Your task to perform on an android device: Open Chrome and go to the settings page Image 0: 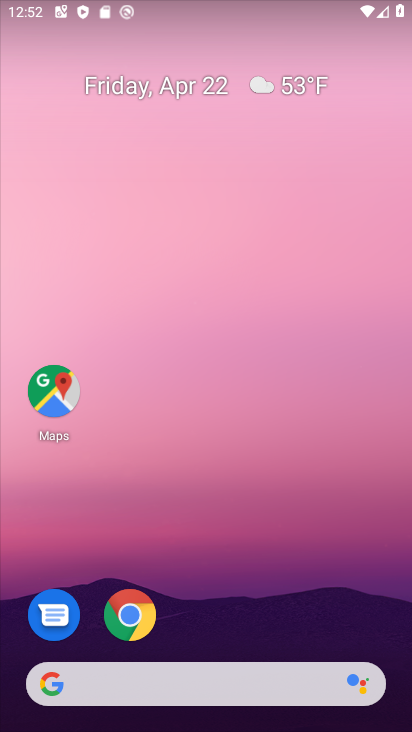
Step 0: click (132, 613)
Your task to perform on an android device: Open Chrome and go to the settings page Image 1: 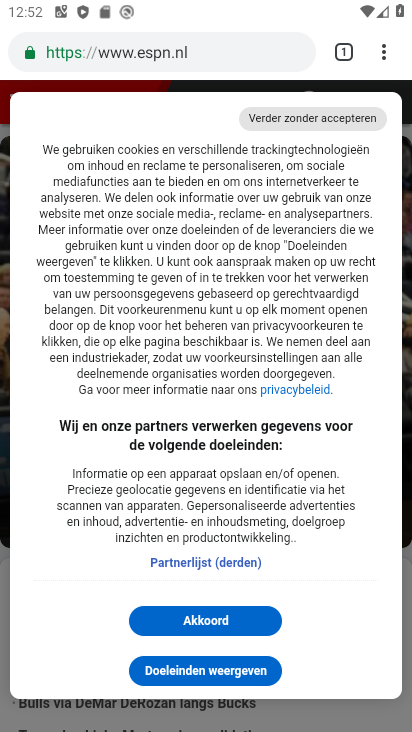
Step 1: click (386, 50)
Your task to perform on an android device: Open Chrome and go to the settings page Image 2: 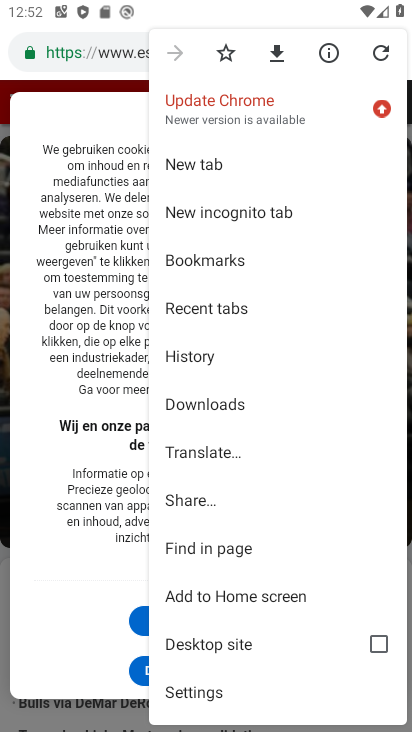
Step 2: click (203, 692)
Your task to perform on an android device: Open Chrome and go to the settings page Image 3: 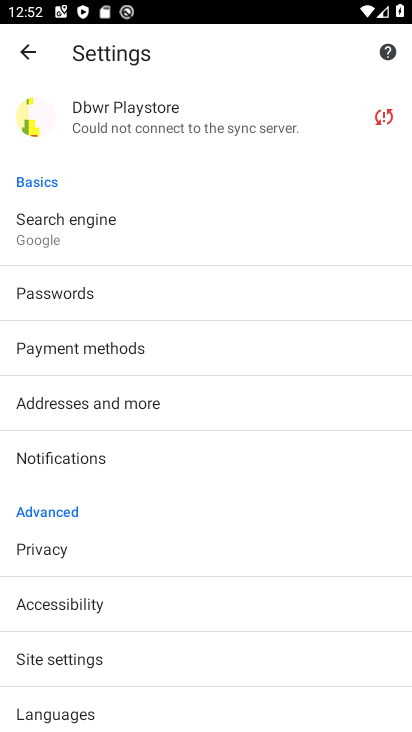
Step 3: task complete